Your task to perform on an android device: Open display settings Image 0: 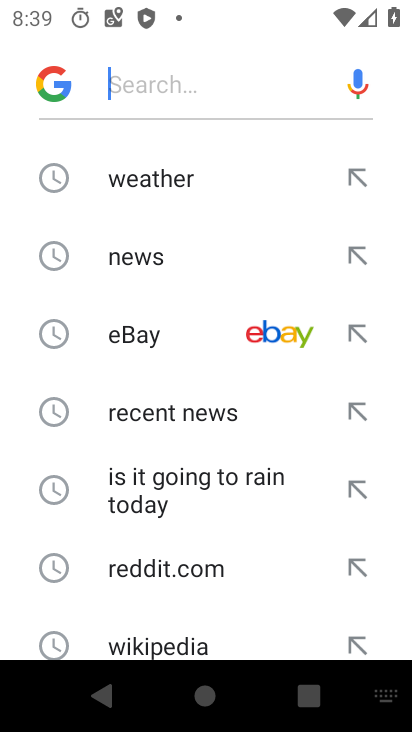
Step 0: press home button
Your task to perform on an android device: Open display settings Image 1: 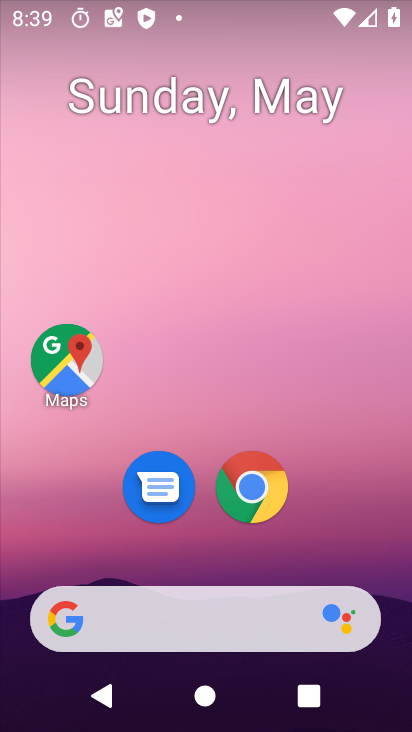
Step 1: drag from (39, 677) to (320, 162)
Your task to perform on an android device: Open display settings Image 2: 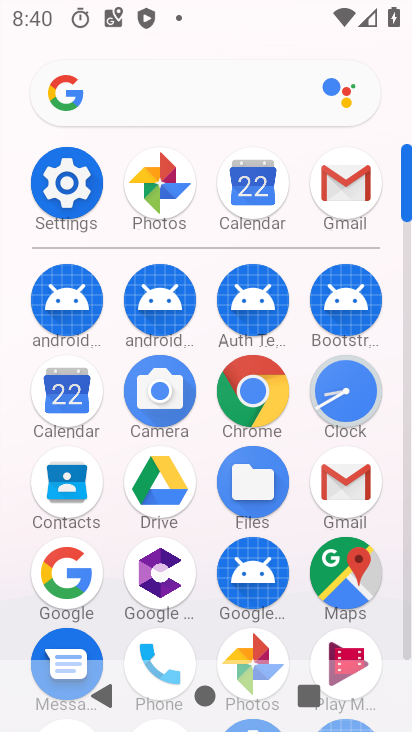
Step 2: click (40, 191)
Your task to perform on an android device: Open display settings Image 3: 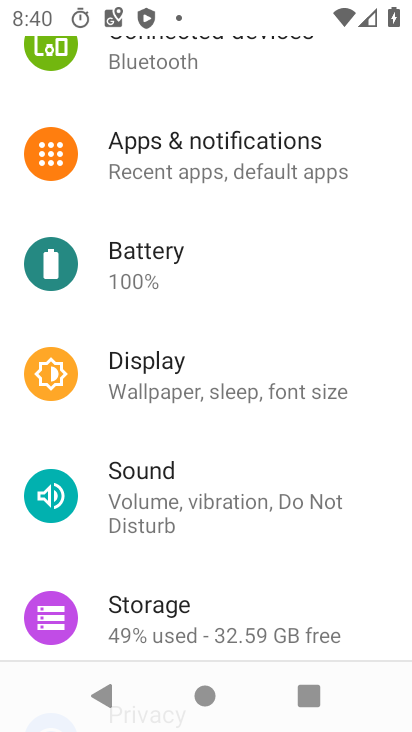
Step 3: click (174, 344)
Your task to perform on an android device: Open display settings Image 4: 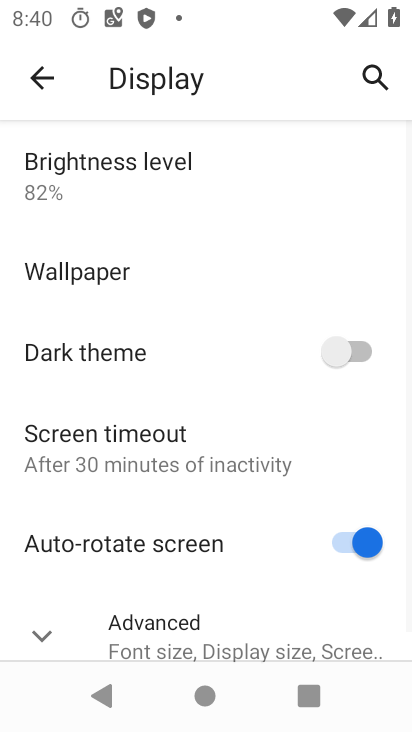
Step 4: task complete